Your task to perform on an android device: turn off airplane mode Image 0: 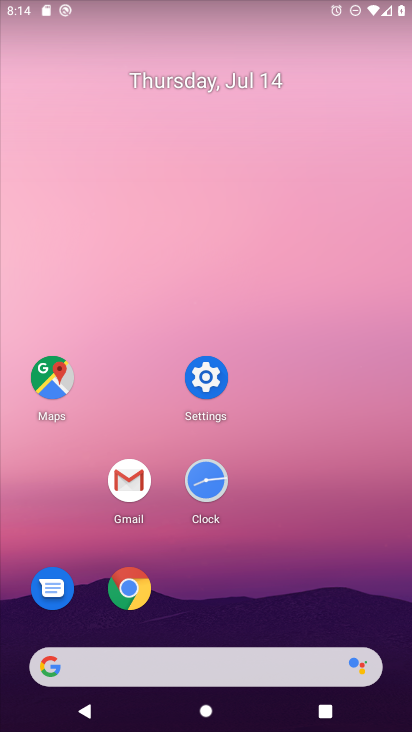
Step 0: click (208, 364)
Your task to perform on an android device: turn off airplane mode Image 1: 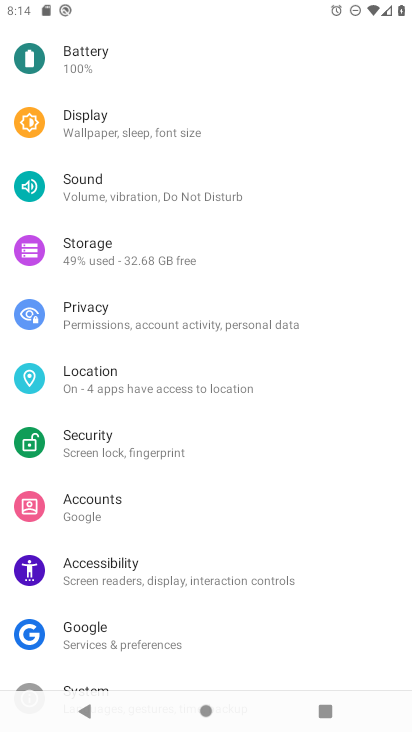
Step 1: drag from (327, 88) to (340, 520)
Your task to perform on an android device: turn off airplane mode Image 2: 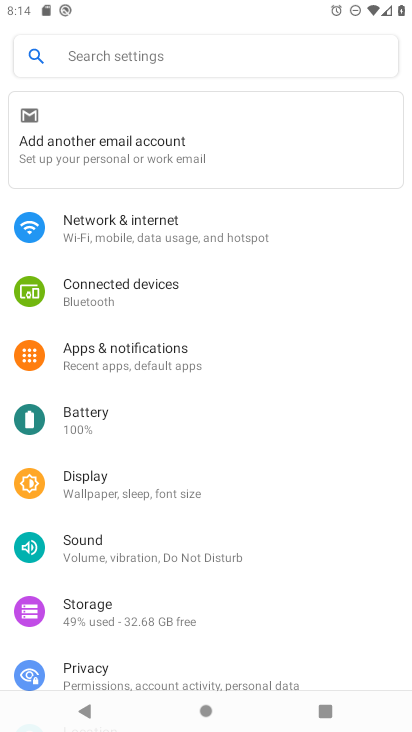
Step 2: click (134, 211)
Your task to perform on an android device: turn off airplane mode Image 3: 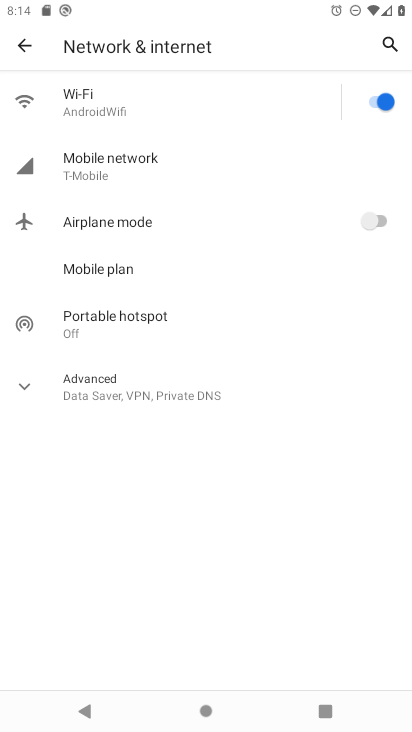
Step 3: click (385, 219)
Your task to perform on an android device: turn off airplane mode Image 4: 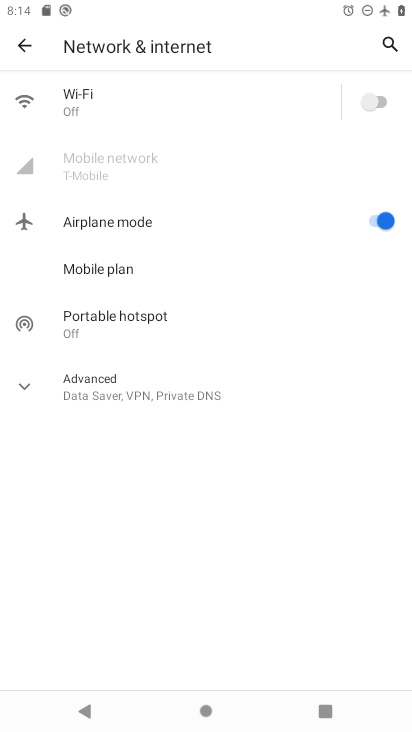
Step 4: click (382, 219)
Your task to perform on an android device: turn off airplane mode Image 5: 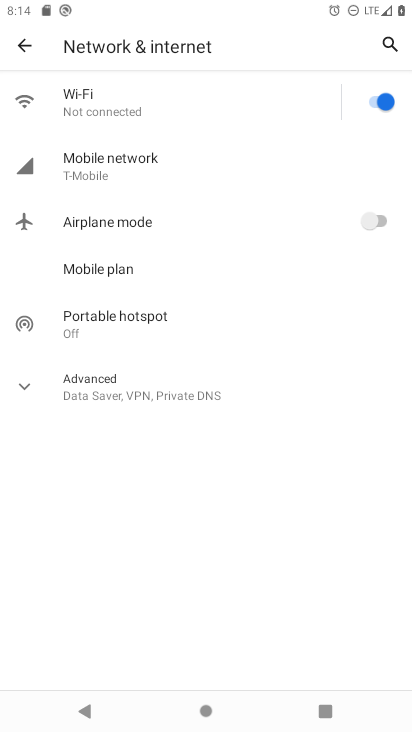
Step 5: task complete